Your task to perform on an android device: find snoozed emails in the gmail app Image 0: 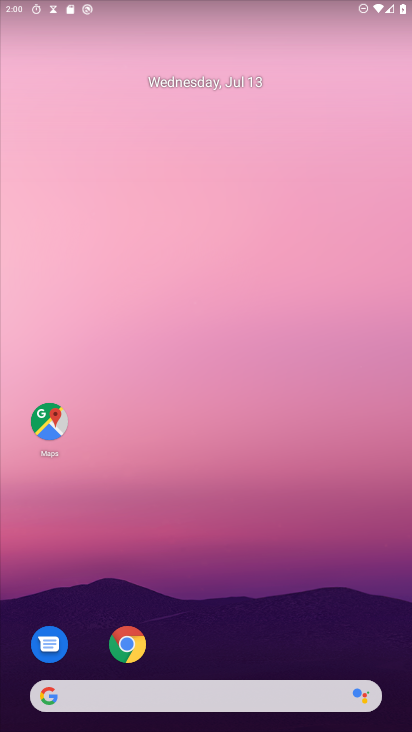
Step 0: press home button
Your task to perform on an android device: find snoozed emails in the gmail app Image 1: 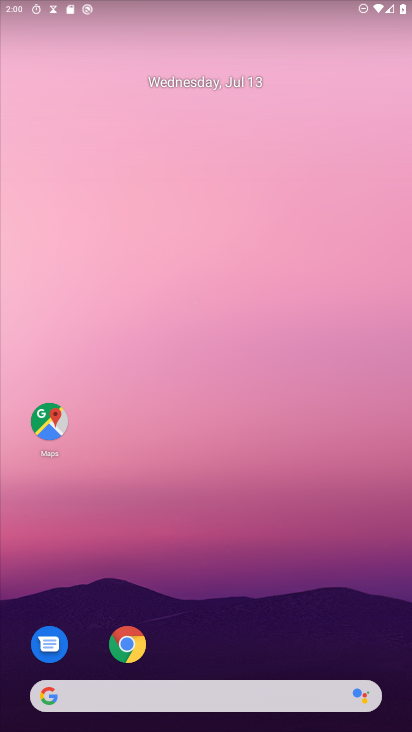
Step 1: drag from (238, 656) to (202, 200)
Your task to perform on an android device: find snoozed emails in the gmail app Image 2: 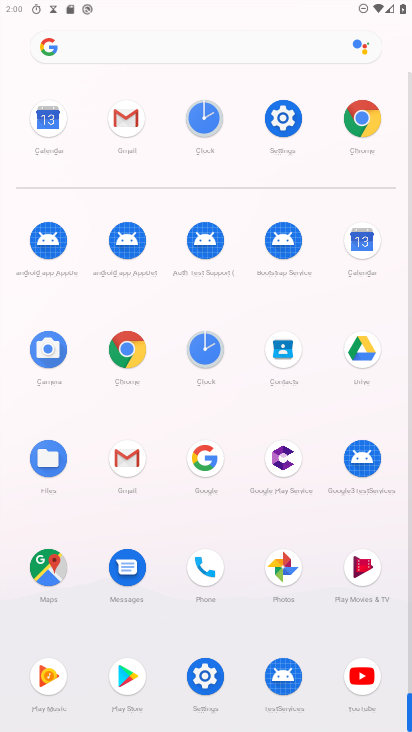
Step 2: click (127, 114)
Your task to perform on an android device: find snoozed emails in the gmail app Image 3: 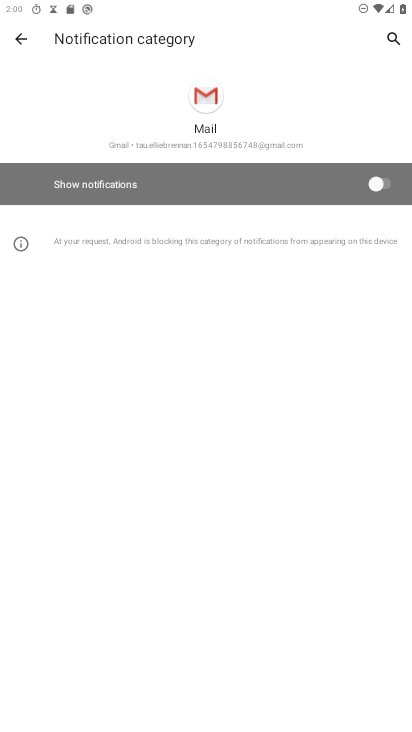
Step 3: click (19, 31)
Your task to perform on an android device: find snoozed emails in the gmail app Image 4: 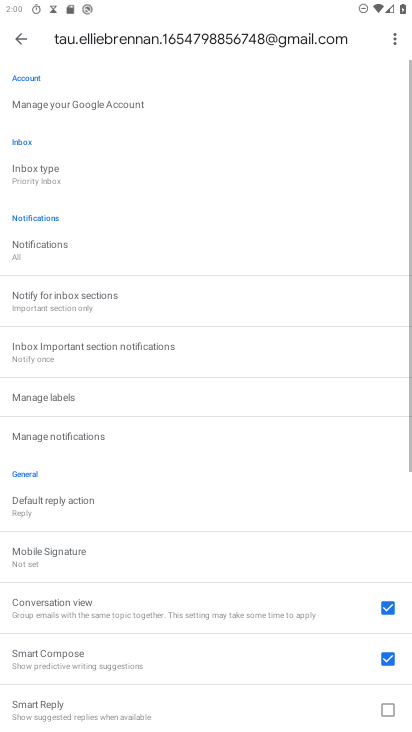
Step 4: click (22, 36)
Your task to perform on an android device: find snoozed emails in the gmail app Image 5: 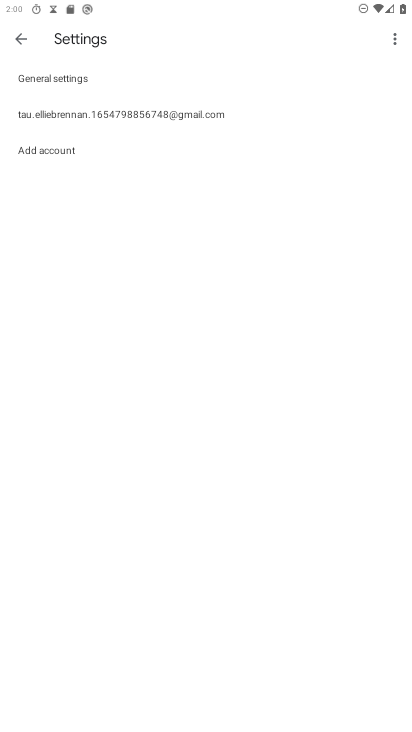
Step 5: click (22, 36)
Your task to perform on an android device: find snoozed emails in the gmail app Image 6: 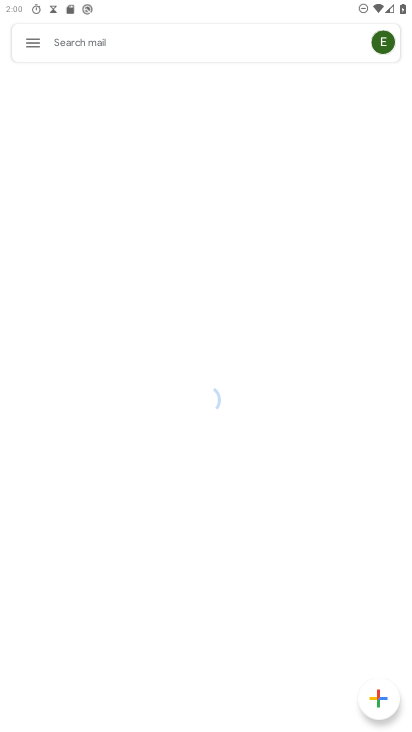
Step 6: click (21, 36)
Your task to perform on an android device: find snoozed emails in the gmail app Image 7: 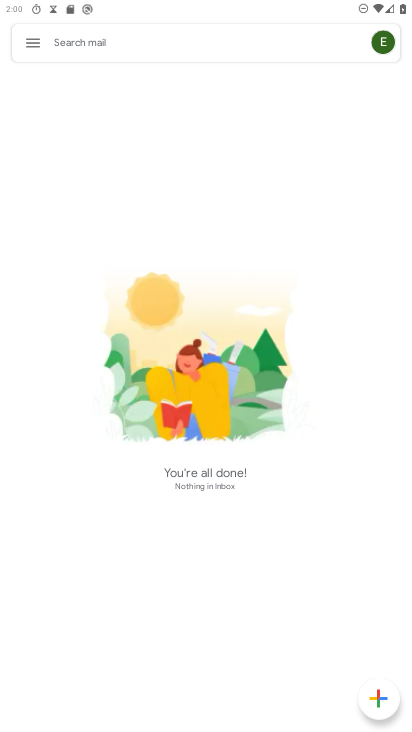
Step 7: click (29, 47)
Your task to perform on an android device: find snoozed emails in the gmail app Image 8: 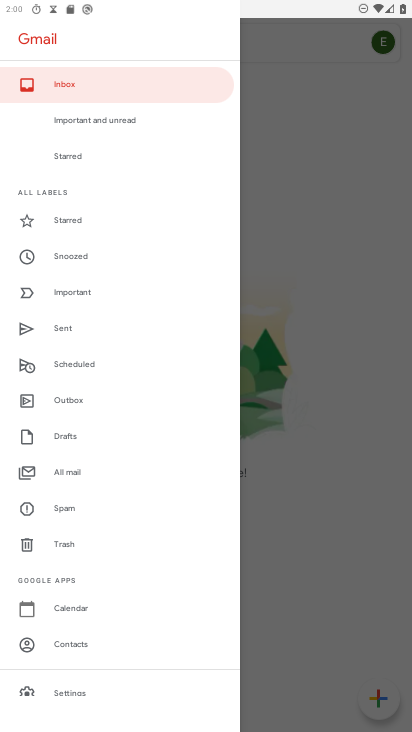
Step 8: click (64, 258)
Your task to perform on an android device: find snoozed emails in the gmail app Image 9: 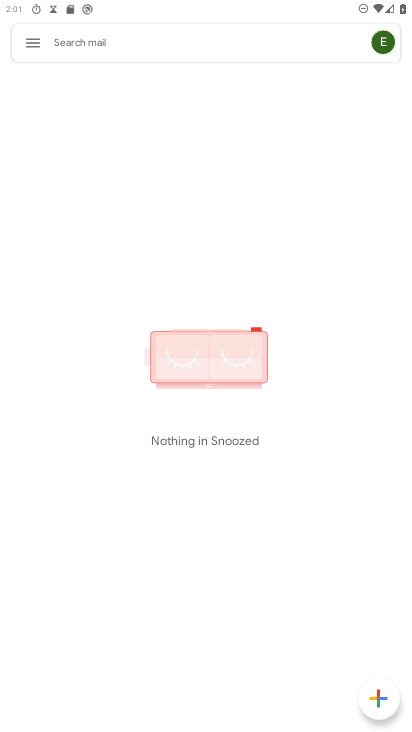
Step 9: task complete